Your task to perform on an android device: Open network settings Image 0: 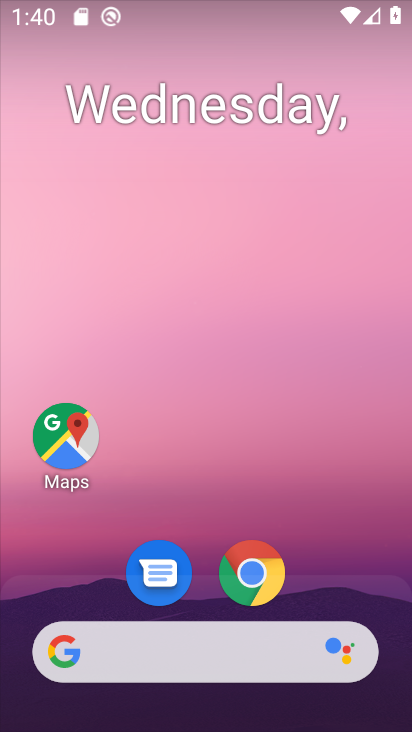
Step 0: drag from (211, 491) to (212, 10)
Your task to perform on an android device: Open network settings Image 1: 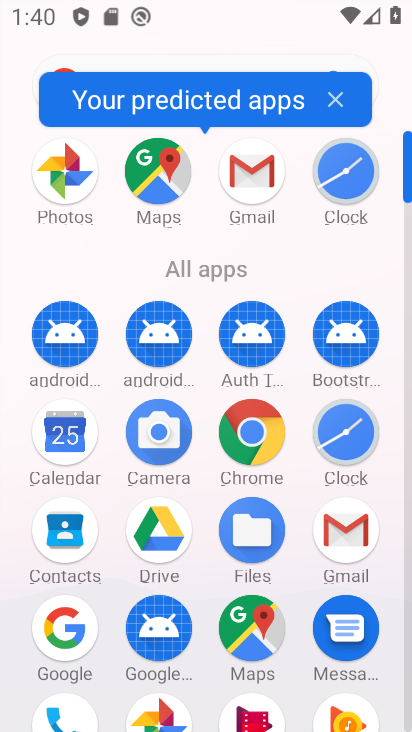
Step 1: drag from (207, 568) to (223, 178)
Your task to perform on an android device: Open network settings Image 2: 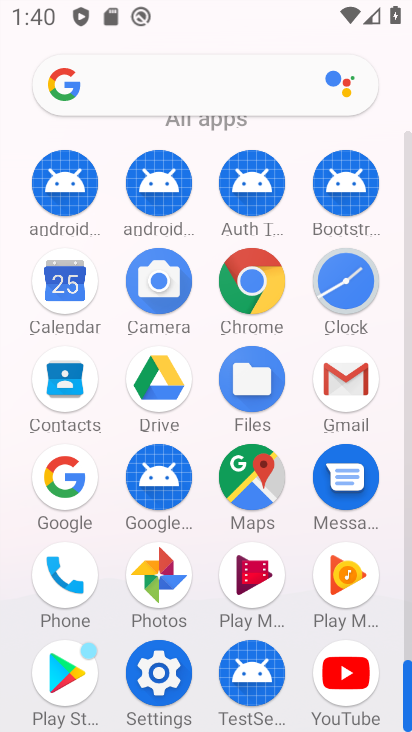
Step 2: click (159, 679)
Your task to perform on an android device: Open network settings Image 3: 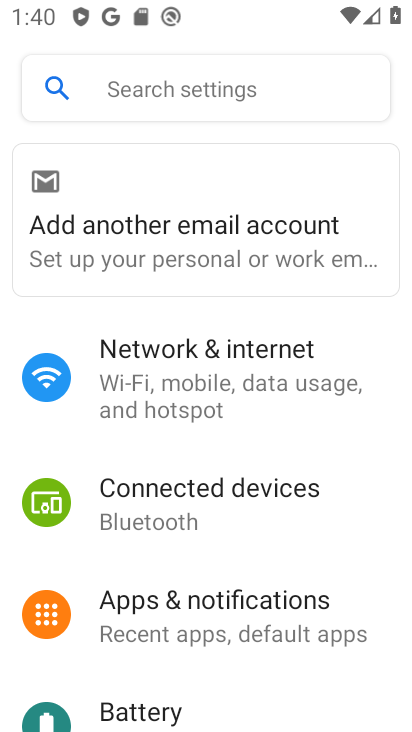
Step 3: click (176, 345)
Your task to perform on an android device: Open network settings Image 4: 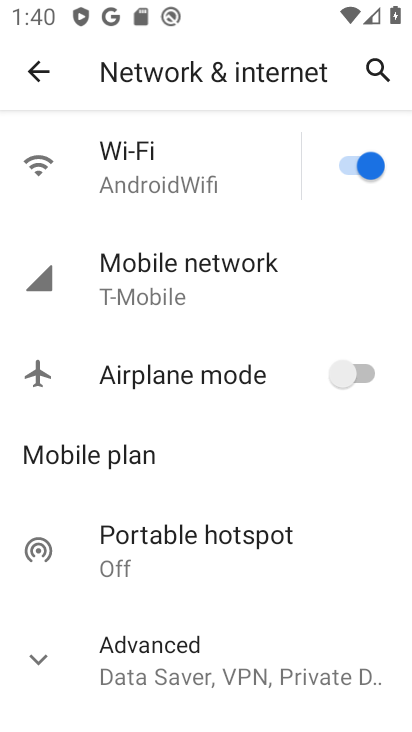
Step 4: task complete